Your task to perform on an android device: Open Google Chrome and click the shortcut for Amazon.com Image 0: 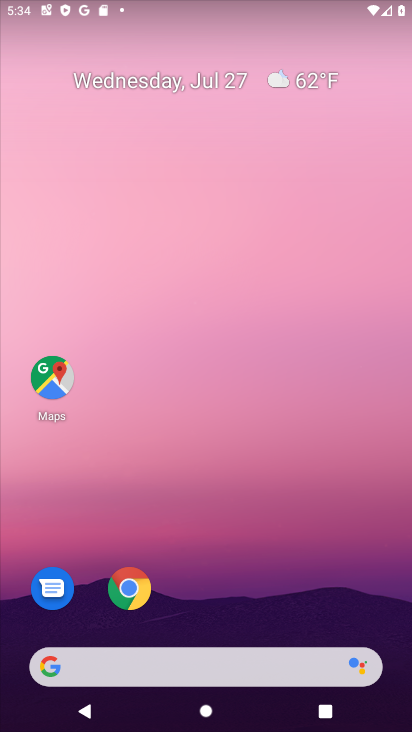
Step 0: click (124, 585)
Your task to perform on an android device: Open Google Chrome and click the shortcut for Amazon.com Image 1: 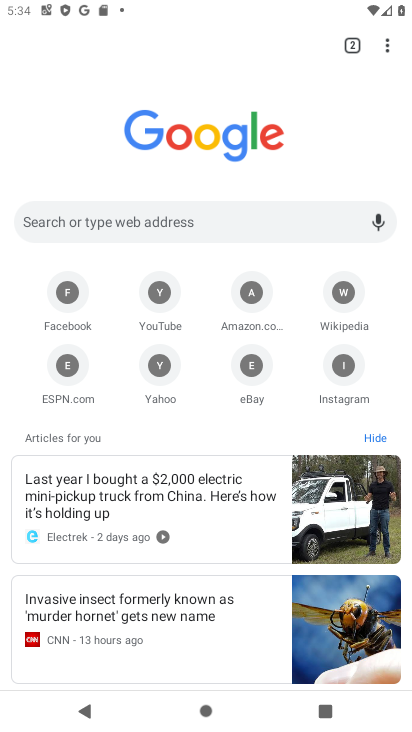
Step 1: click (248, 305)
Your task to perform on an android device: Open Google Chrome and click the shortcut for Amazon.com Image 2: 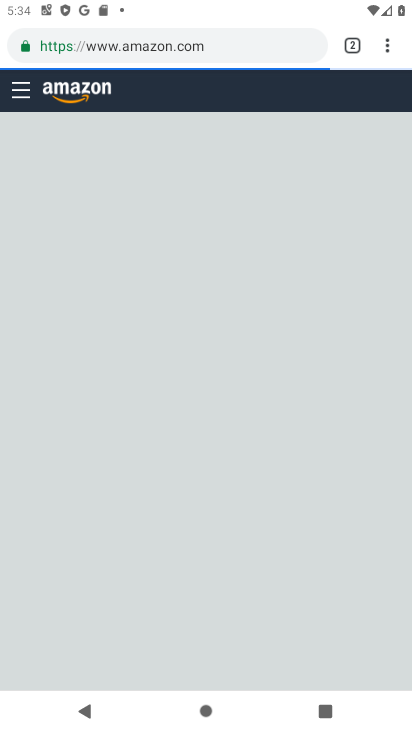
Step 2: task complete